Your task to perform on an android device: check out phone information Image 0: 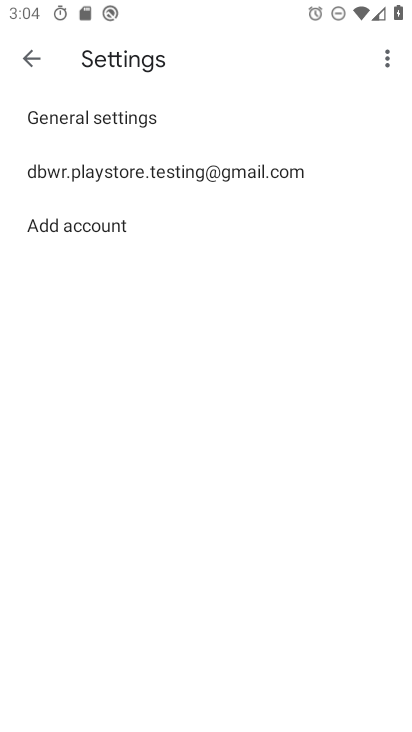
Step 0: drag from (266, 546) to (259, 379)
Your task to perform on an android device: check out phone information Image 1: 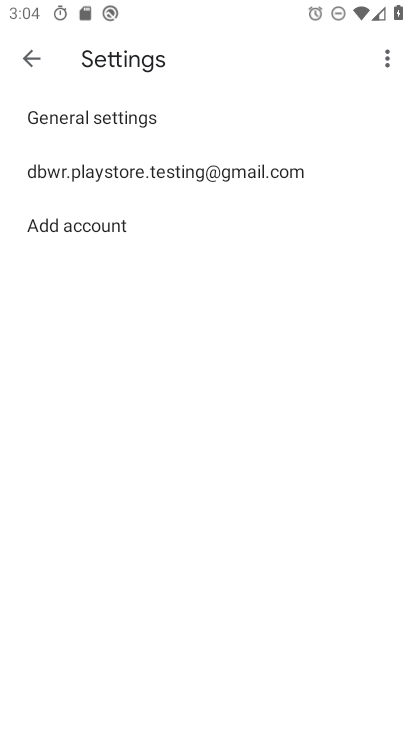
Step 1: press home button
Your task to perform on an android device: check out phone information Image 2: 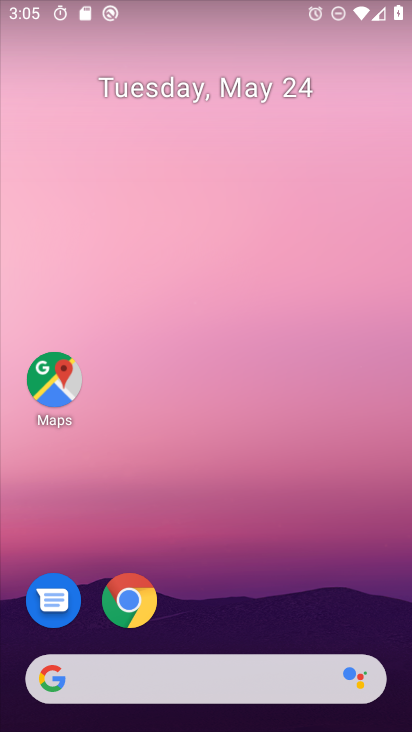
Step 2: drag from (301, 549) to (262, 225)
Your task to perform on an android device: check out phone information Image 3: 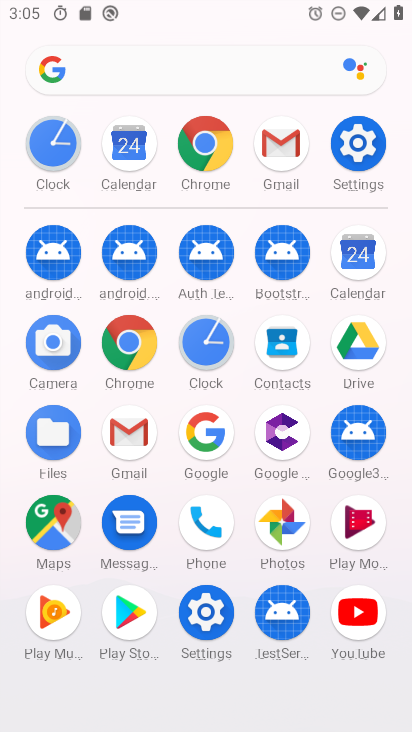
Step 3: click (204, 517)
Your task to perform on an android device: check out phone information Image 4: 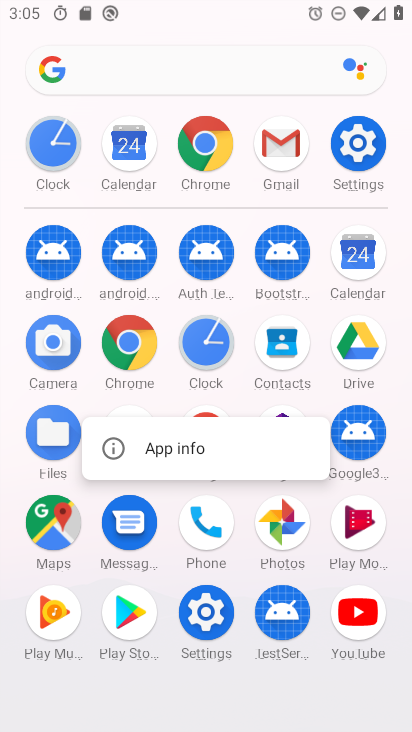
Step 4: click (189, 446)
Your task to perform on an android device: check out phone information Image 5: 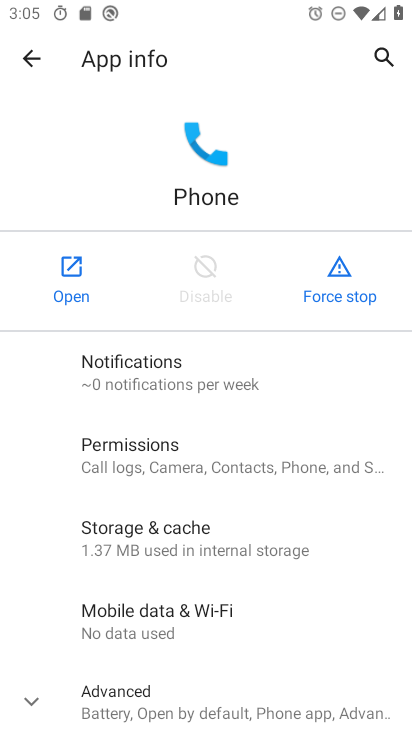
Step 5: task complete